Your task to perform on an android device: Open settings on Google Maps Image 0: 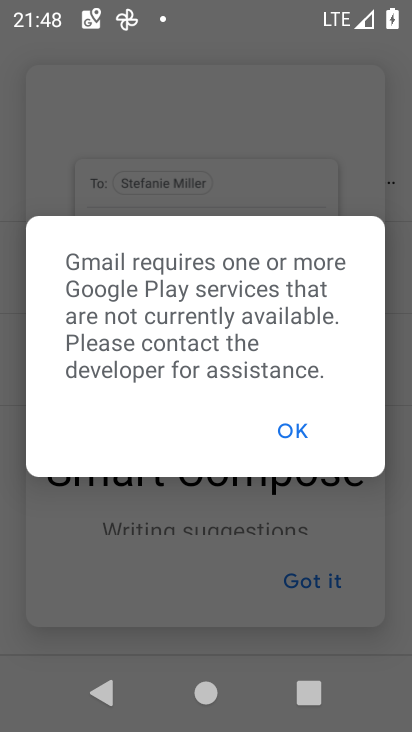
Step 0: press home button
Your task to perform on an android device: Open settings on Google Maps Image 1: 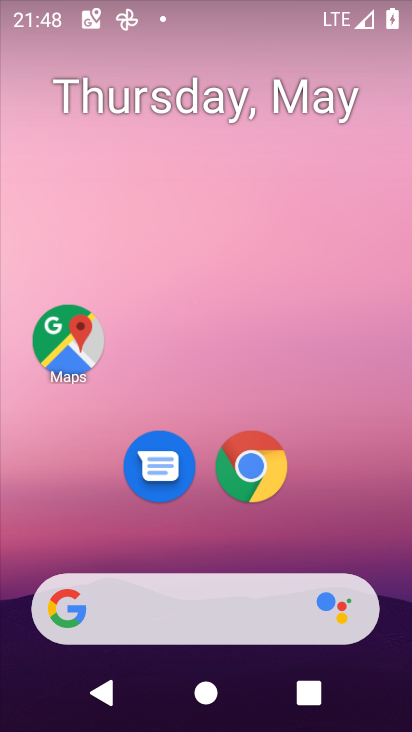
Step 1: click (358, 525)
Your task to perform on an android device: Open settings on Google Maps Image 2: 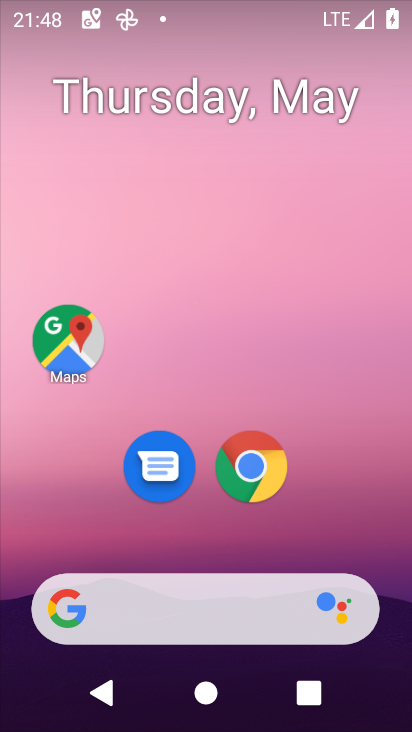
Step 2: click (59, 330)
Your task to perform on an android device: Open settings on Google Maps Image 3: 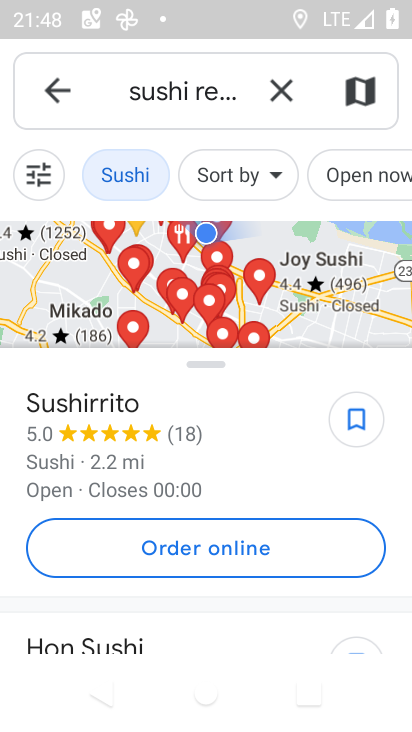
Step 3: click (44, 96)
Your task to perform on an android device: Open settings on Google Maps Image 4: 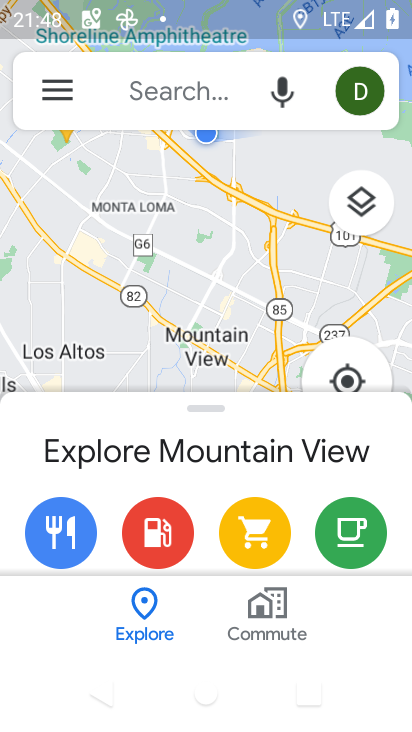
Step 4: click (44, 96)
Your task to perform on an android device: Open settings on Google Maps Image 5: 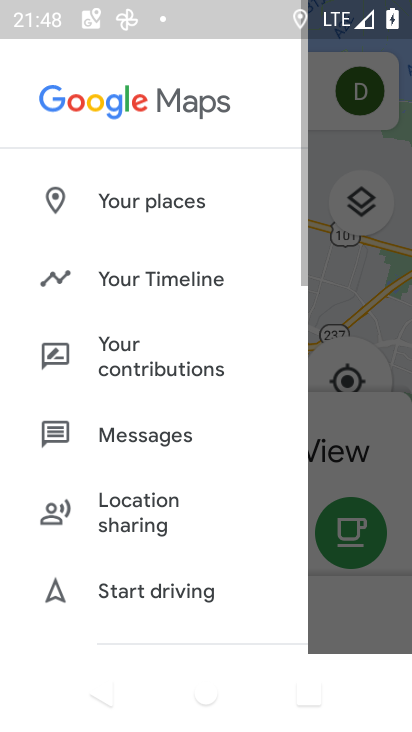
Step 5: drag from (96, 536) to (146, 148)
Your task to perform on an android device: Open settings on Google Maps Image 6: 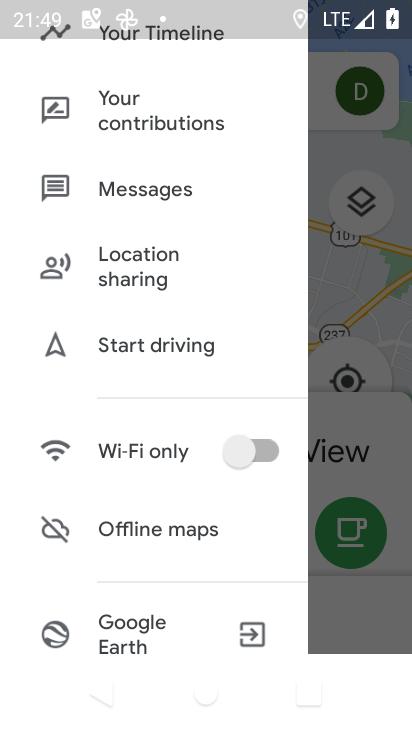
Step 6: drag from (175, 593) to (174, 275)
Your task to perform on an android device: Open settings on Google Maps Image 7: 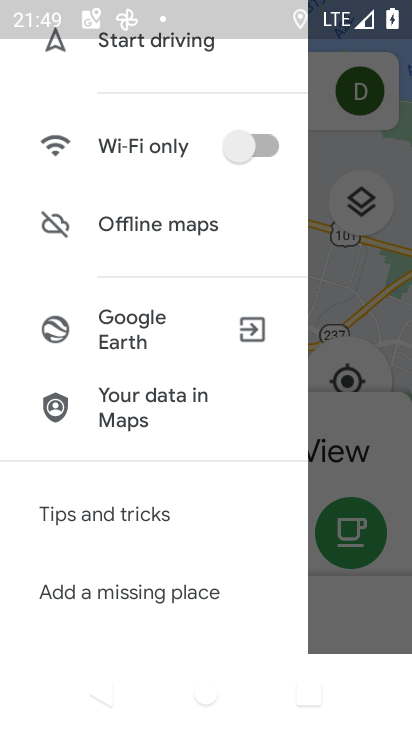
Step 7: drag from (140, 615) to (150, 252)
Your task to perform on an android device: Open settings on Google Maps Image 8: 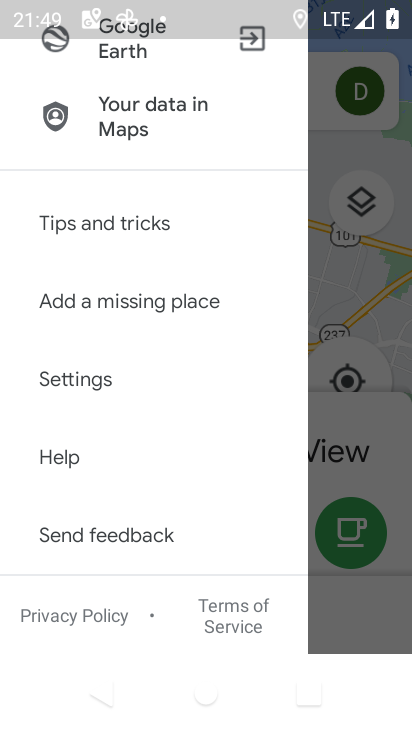
Step 8: click (119, 383)
Your task to perform on an android device: Open settings on Google Maps Image 9: 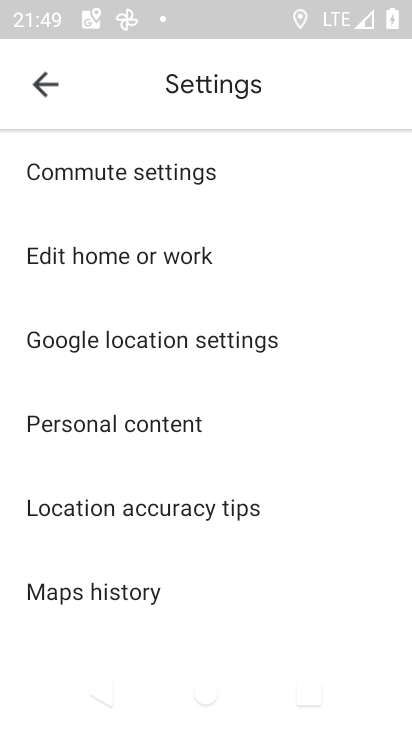
Step 9: task complete